Your task to perform on an android device: Open Reddit.com Image 0: 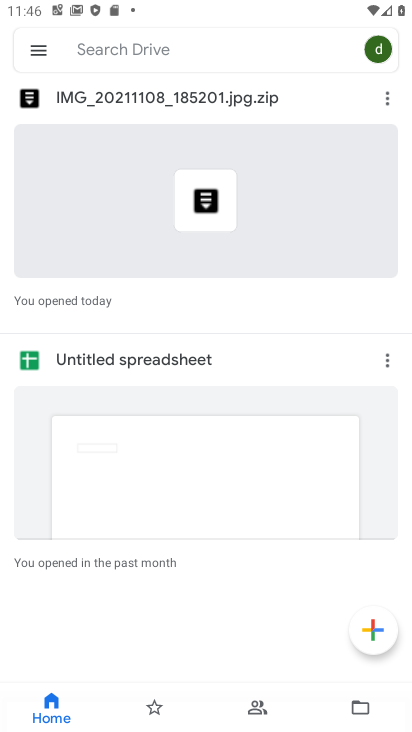
Step 0: press back button
Your task to perform on an android device: Open Reddit.com Image 1: 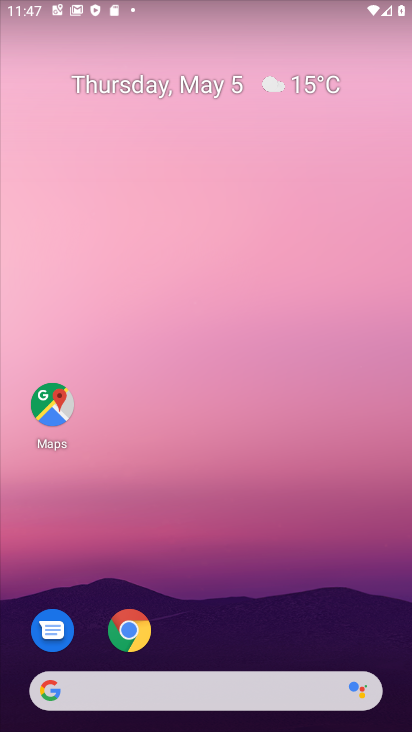
Step 1: click (122, 658)
Your task to perform on an android device: Open Reddit.com Image 2: 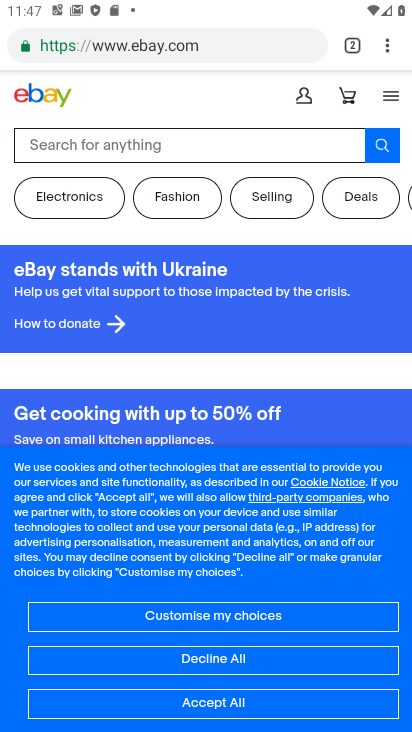
Step 2: click (196, 41)
Your task to perform on an android device: Open Reddit.com Image 3: 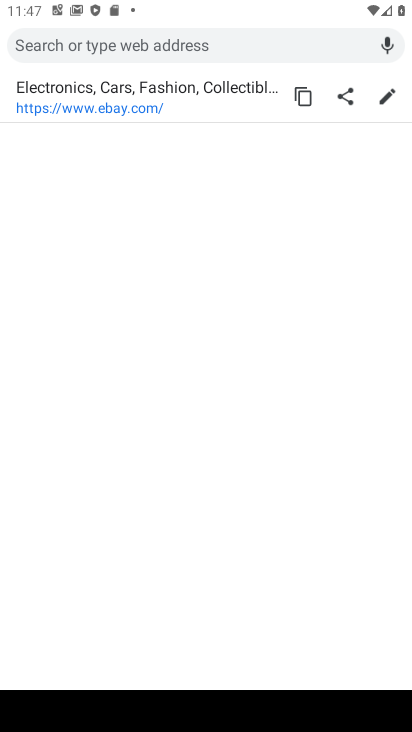
Step 3: drag from (410, 717) to (368, 713)
Your task to perform on an android device: Open Reddit.com Image 4: 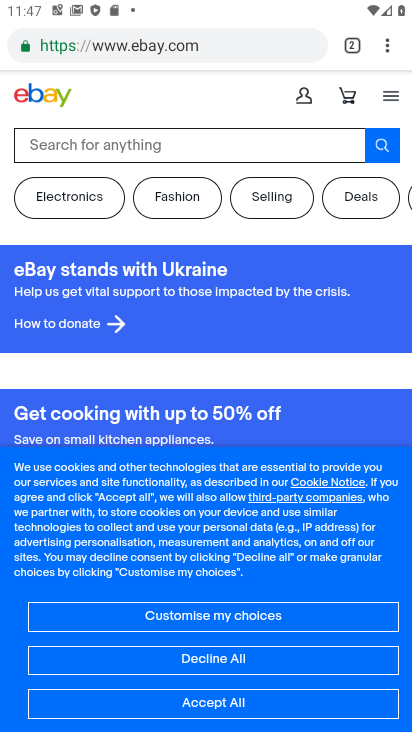
Step 4: type " Reddit.com"
Your task to perform on an android device: Open Reddit.com Image 5: 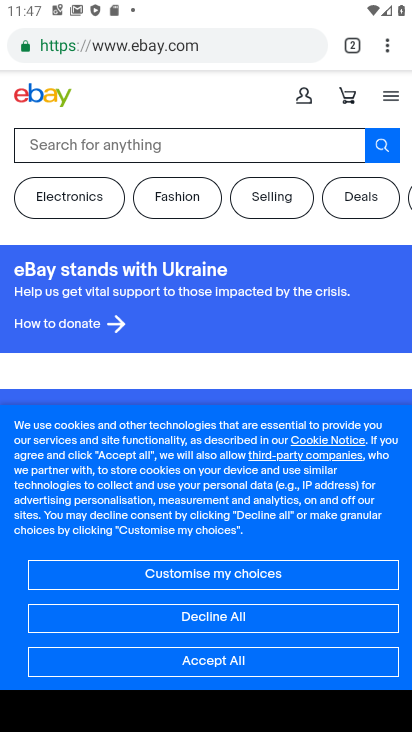
Step 5: click (188, 44)
Your task to perform on an android device: Open Reddit.com Image 6: 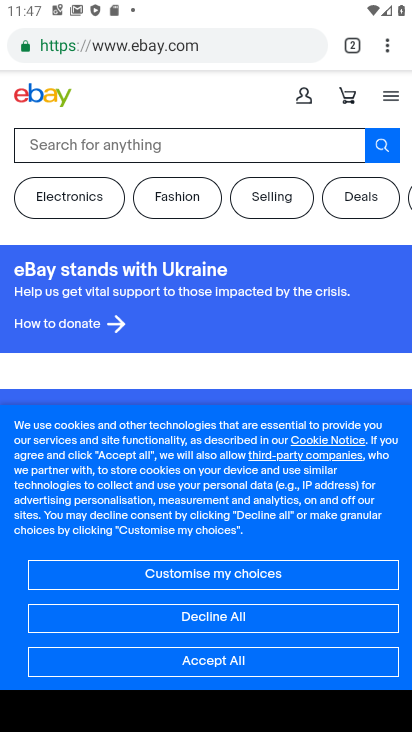
Step 6: click (188, 44)
Your task to perform on an android device: Open Reddit.com Image 7: 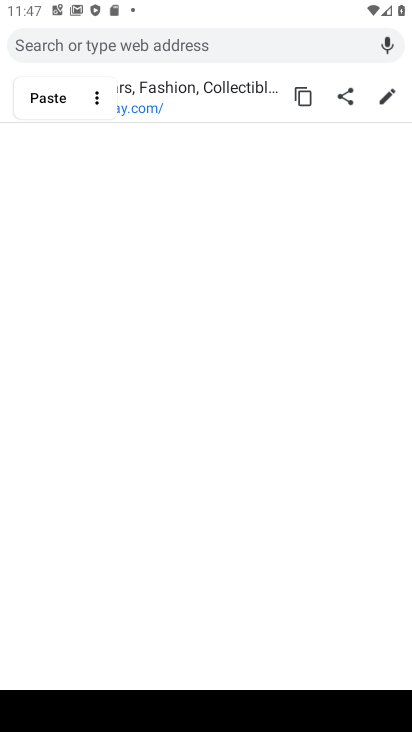
Step 7: type " Reddit.com"
Your task to perform on an android device: Open Reddit.com Image 8: 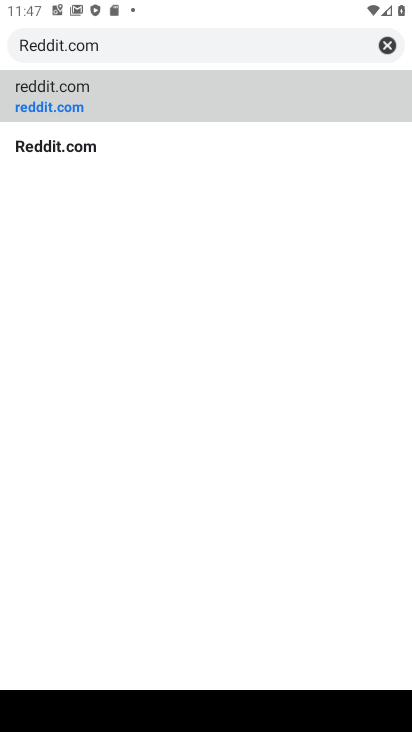
Step 8: click (82, 109)
Your task to perform on an android device: Open Reddit.com Image 9: 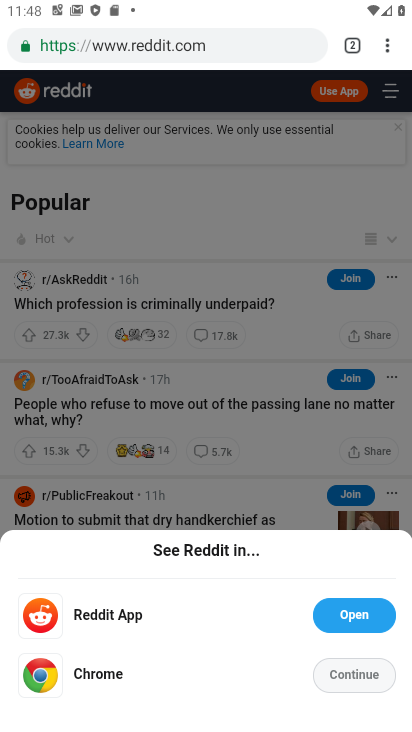
Step 9: task complete